Your task to perform on an android device: turn off location history Image 0: 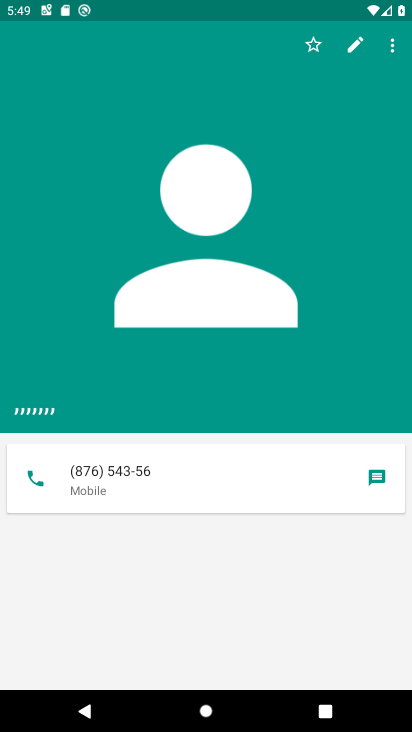
Step 0: press home button
Your task to perform on an android device: turn off location history Image 1: 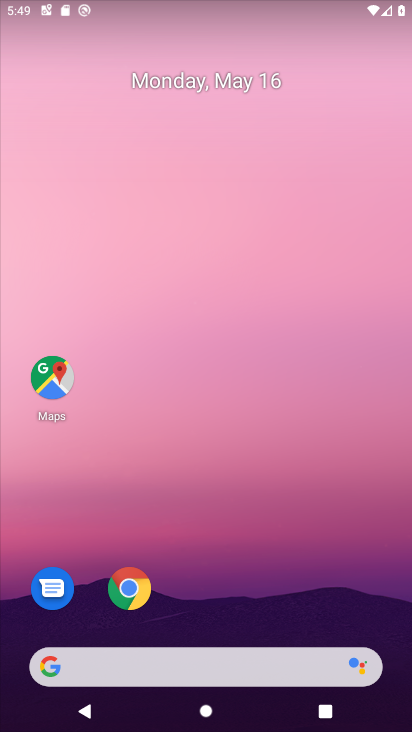
Step 1: drag from (306, 472) to (245, 34)
Your task to perform on an android device: turn off location history Image 2: 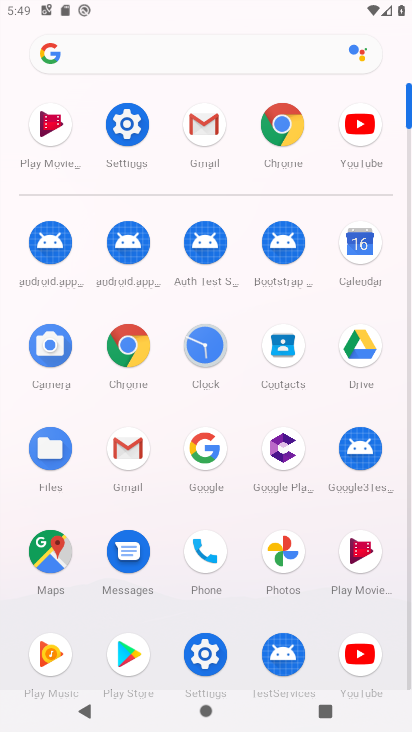
Step 2: click (133, 123)
Your task to perform on an android device: turn off location history Image 3: 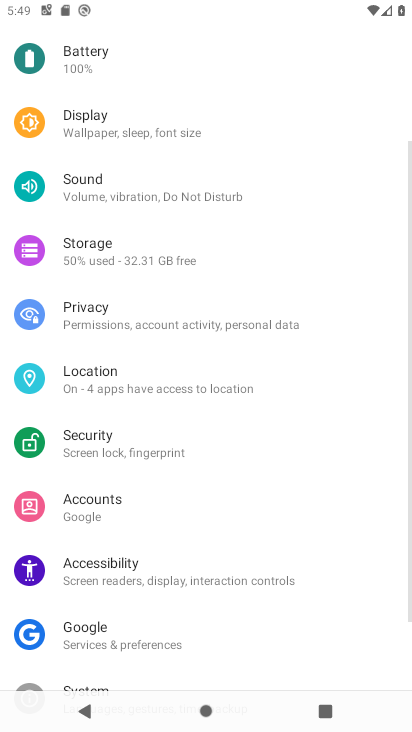
Step 3: click (194, 380)
Your task to perform on an android device: turn off location history Image 4: 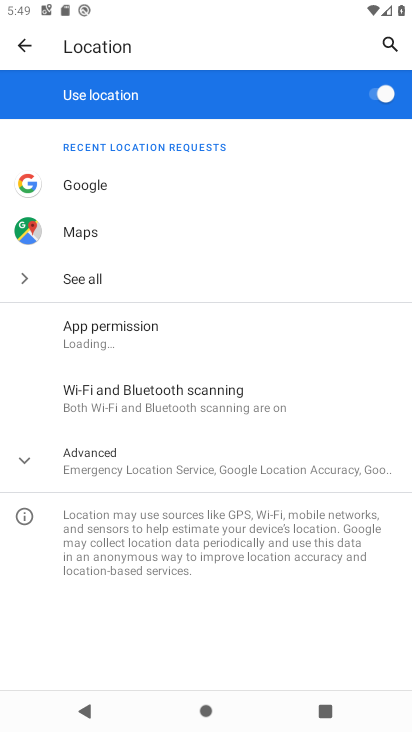
Step 4: click (186, 470)
Your task to perform on an android device: turn off location history Image 5: 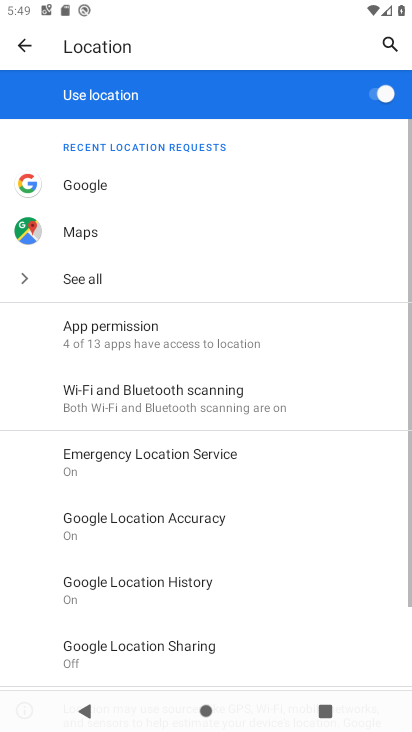
Step 5: click (169, 591)
Your task to perform on an android device: turn off location history Image 6: 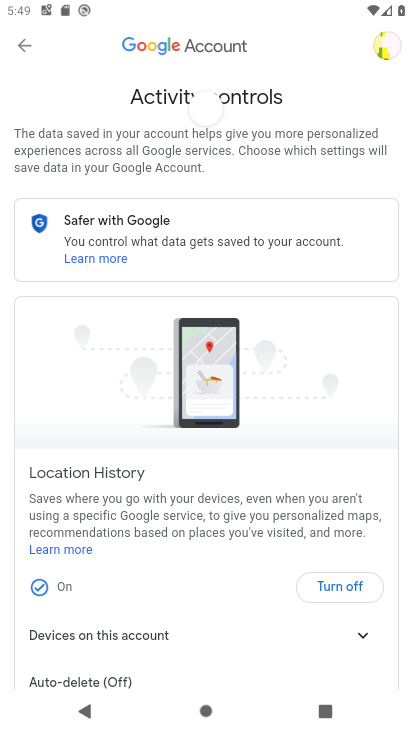
Step 6: click (345, 586)
Your task to perform on an android device: turn off location history Image 7: 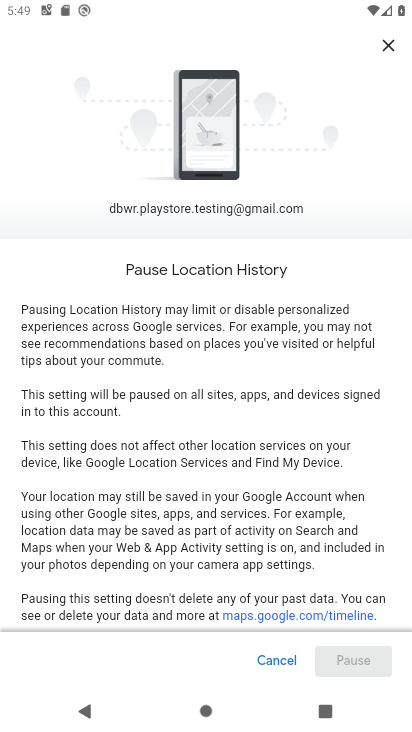
Step 7: drag from (325, 526) to (326, 104)
Your task to perform on an android device: turn off location history Image 8: 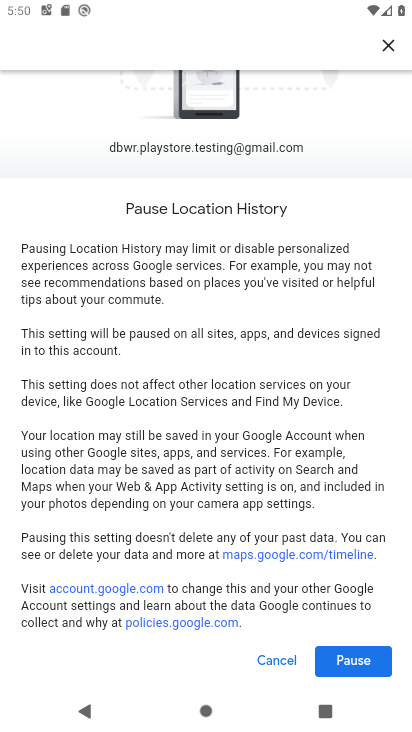
Step 8: click (337, 661)
Your task to perform on an android device: turn off location history Image 9: 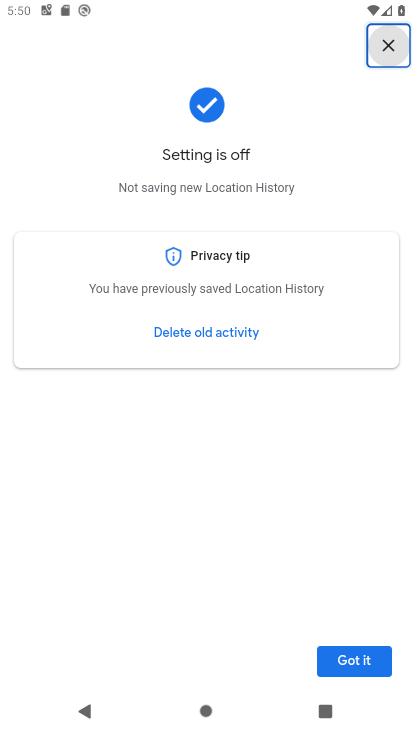
Step 9: click (356, 649)
Your task to perform on an android device: turn off location history Image 10: 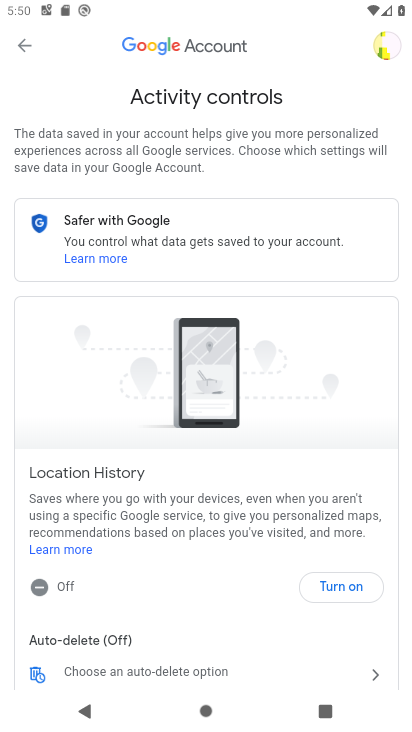
Step 10: task complete